Your task to perform on an android device: turn on priority inbox in the gmail app Image 0: 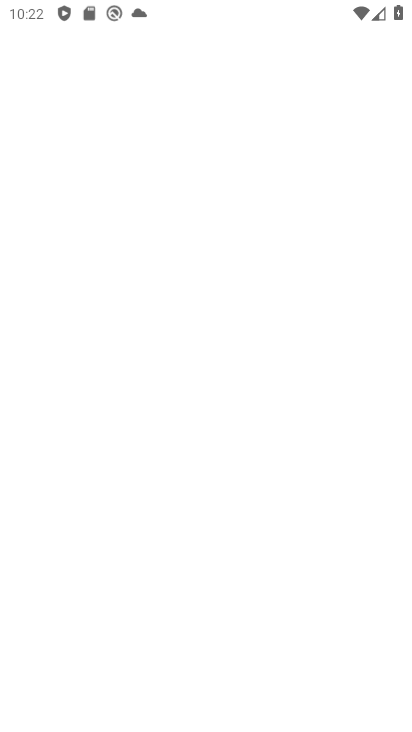
Step 0: click (408, 243)
Your task to perform on an android device: turn on priority inbox in the gmail app Image 1: 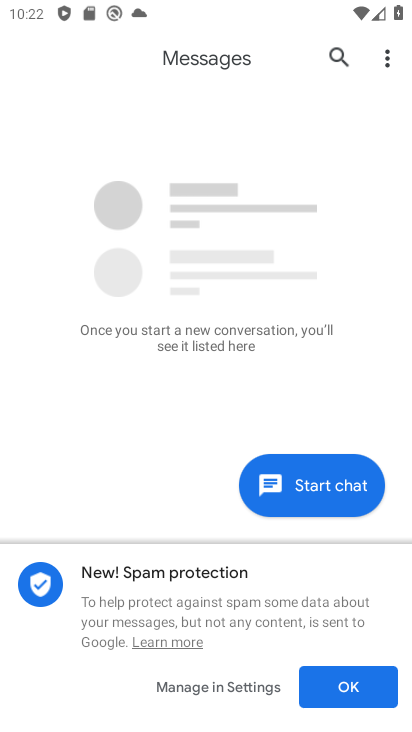
Step 1: click (362, 692)
Your task to perform on an android device: turn on priority inbox in the gmail app Image 2: 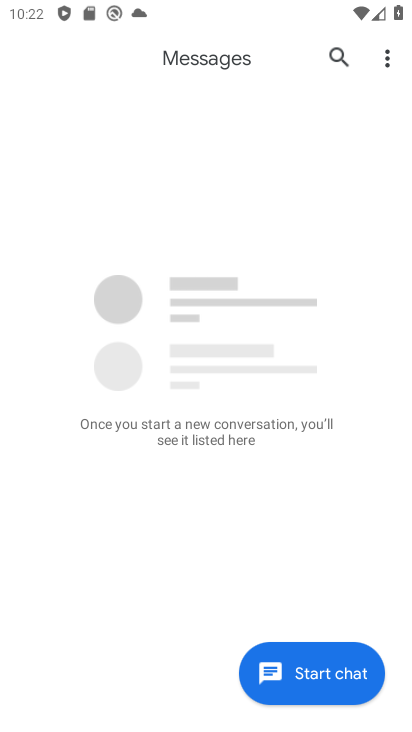
Step 2: press home button
Your task to perform on an android device: turn on priority inbox in the gmail app Image 3: 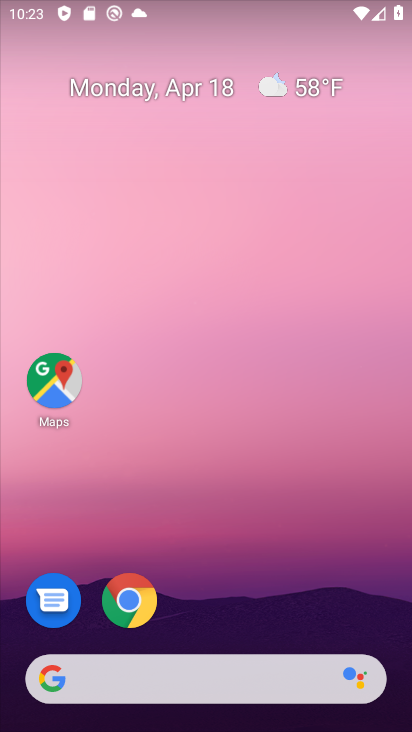
Step 3: drag from (230, 604) to (179, 131)
Your task to perform on an android device: turn on priority inbox in the gmail app Image 4: 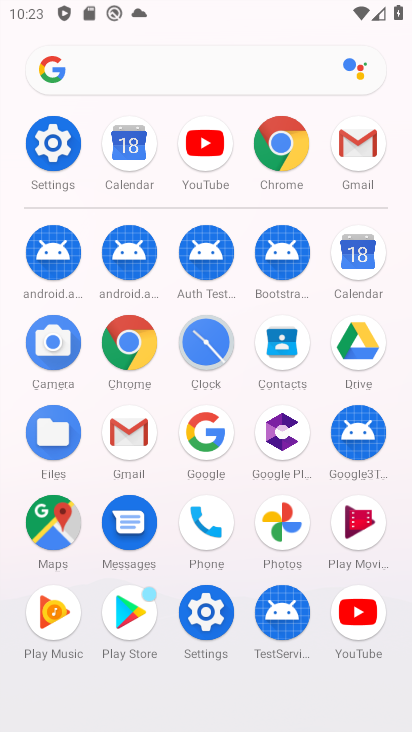
Step 4: click (117, 439)
Your task to perform on an android device: turn on priority inbox in the gmail app Image 5: 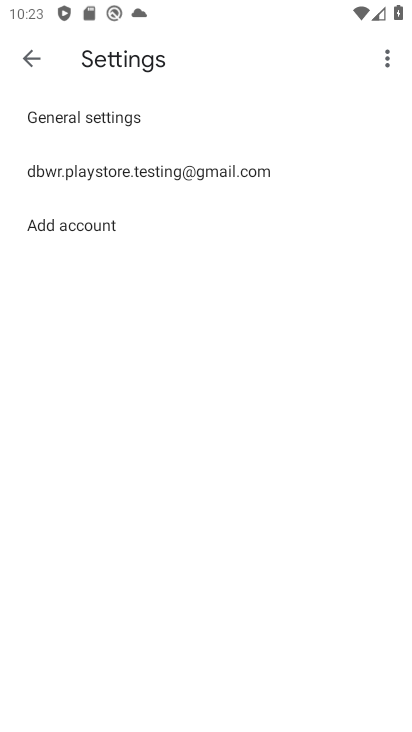
Step 5: click (116, 166)
Your task to perform on an android device: turn on priority inbox in the gmail app Image 6: 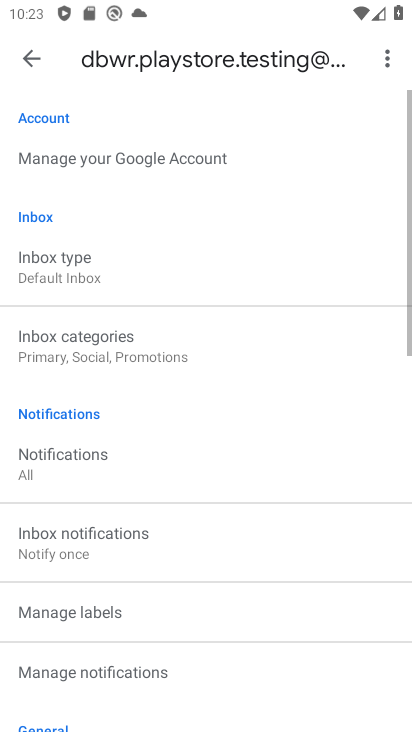
Step 6: click (69, 259)
Your task to perform on an android device: turn on priority inbox in the gmail app Image 7: 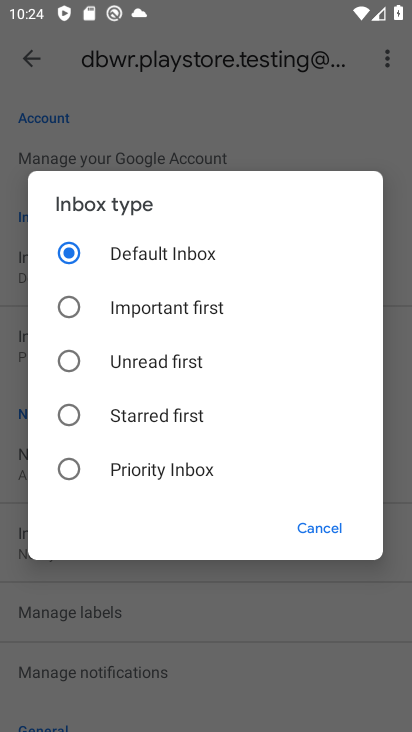
Step 7: click (68, 464)
Your task to perform on an android device: turn on priority inbox in the gmail app Image 8: 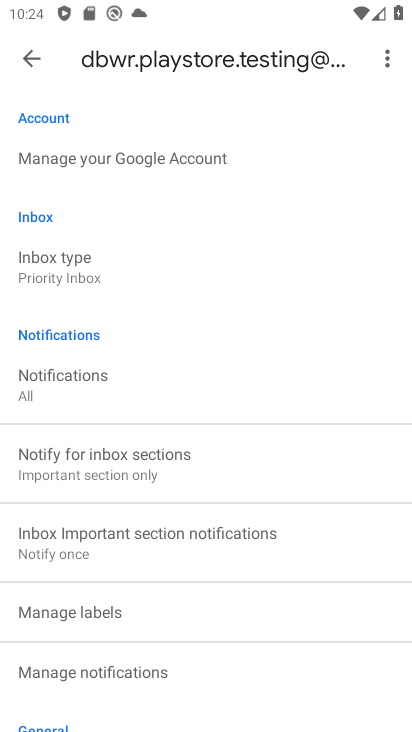
Step 8: task complete